Your task to perform on an android device: turn on data saver in the chrome app Image 0: 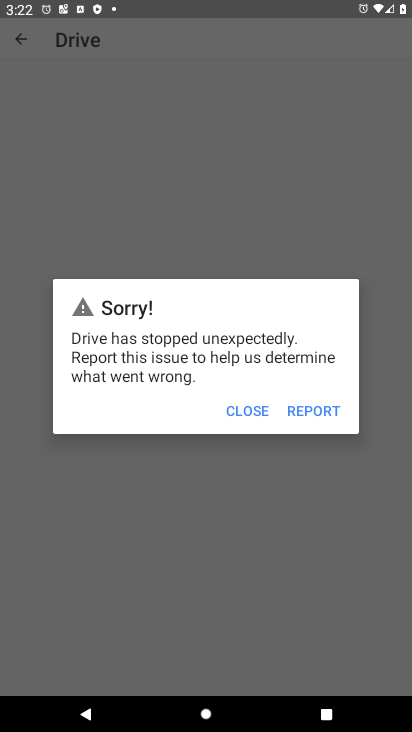
Step 0: press home button
Your task to perform on an android device: turn on data saver in the chrome app Image 1: 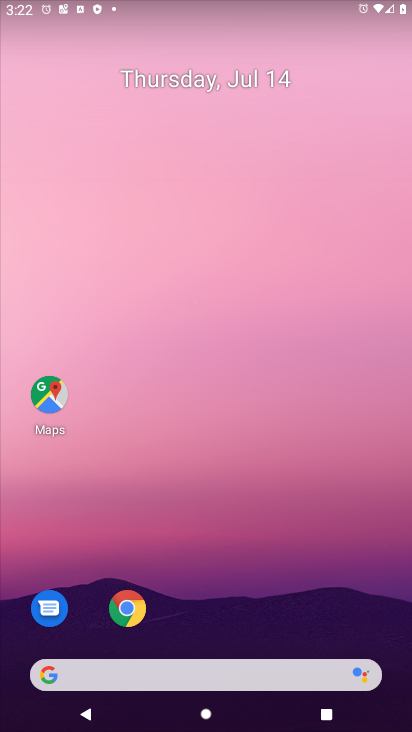
Step 1: click (126, 608)
Your task to perform on an android device: turn on data saver in the chrome app Image 2: 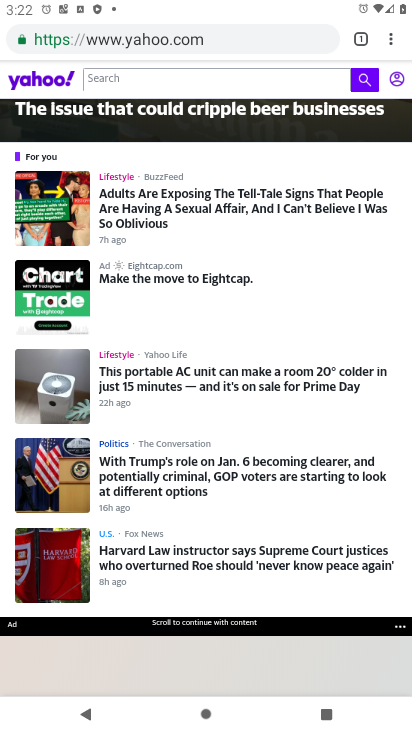
Step 2: click (393, 41)
Your task to perform on an android device: turn on data saver in the chrome app Image 3: 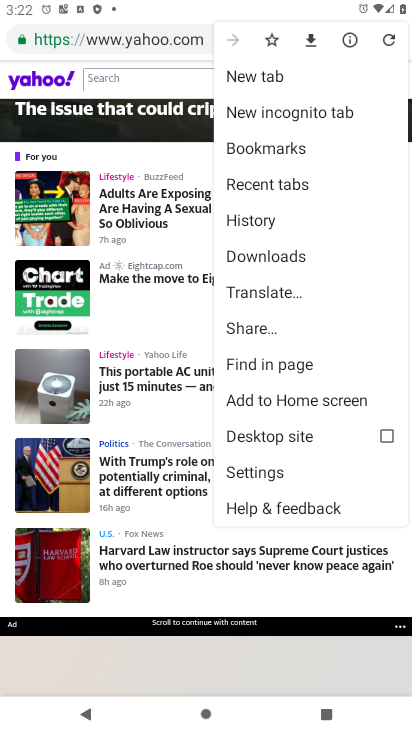
Step 3: click (261, 472)
Your task to perform on an android device: turn on data saver in the chrome app Image 4: 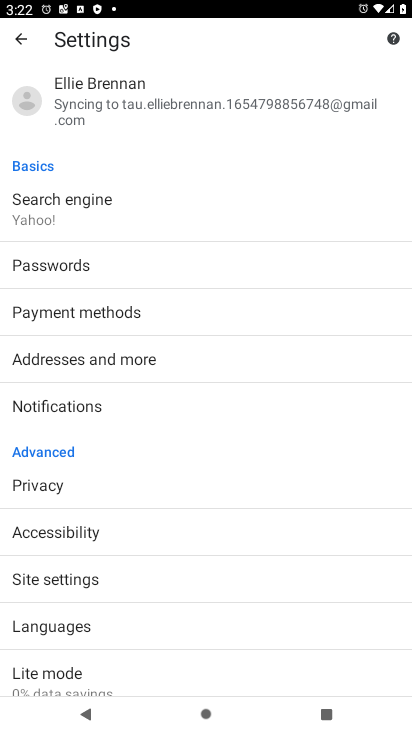
Step 4: click (38, 671)
Your task to perform on an android device: turn on data saver in the chrome app Image 5: 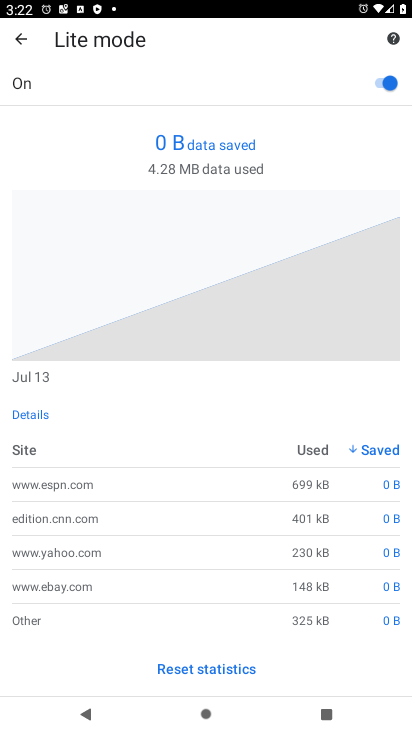
Step 5: task complete